Your task to perform on an android device: Check the settings for the Lyft app Image 0: 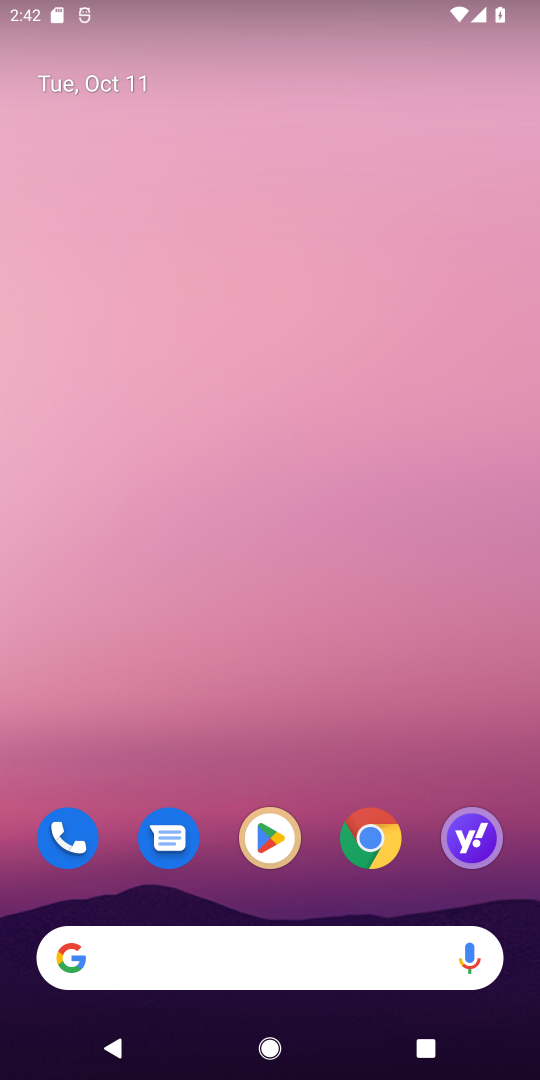
Step 0: click (371, 838)
Your task to perform on an android device: Check the settings for the Lyft app Image 1: 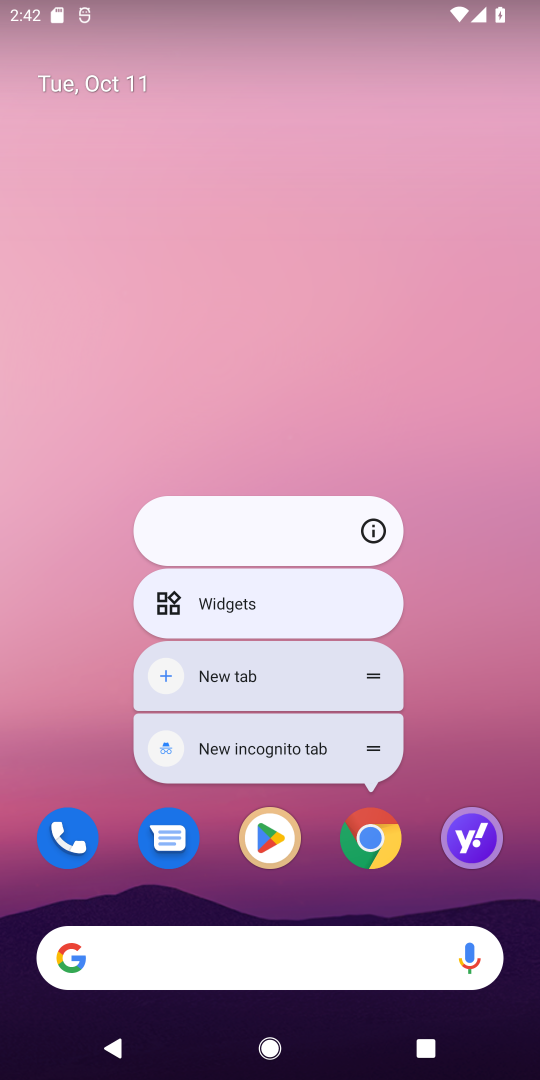
Step 1: click (378, 836)
Your task to perform on an android device: Check the settings for the Lyft app Image 2: 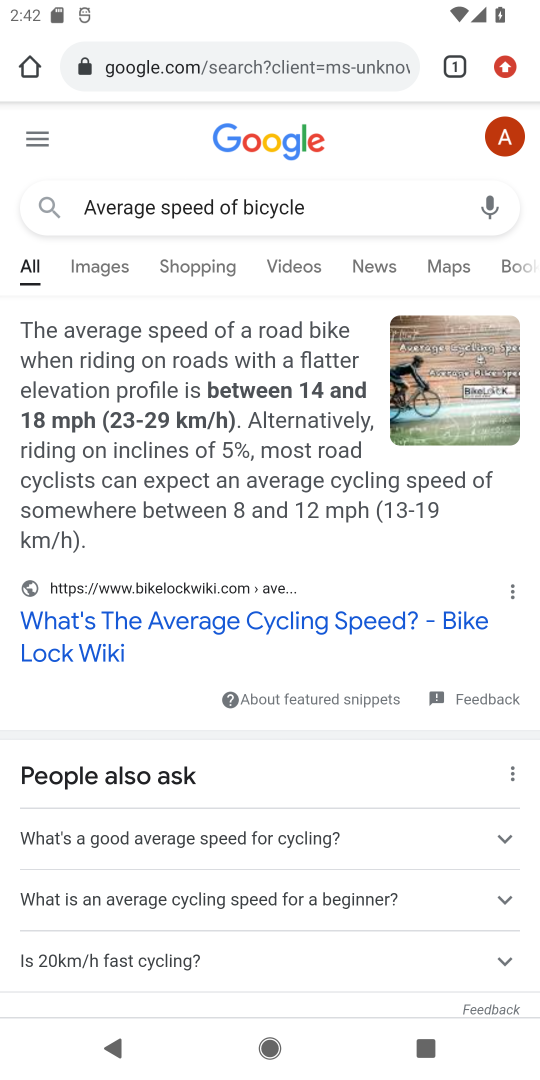
Step 2: click (236, 67)
Your task to perform on an android device: Check the settings for the Lyft app Image 3: 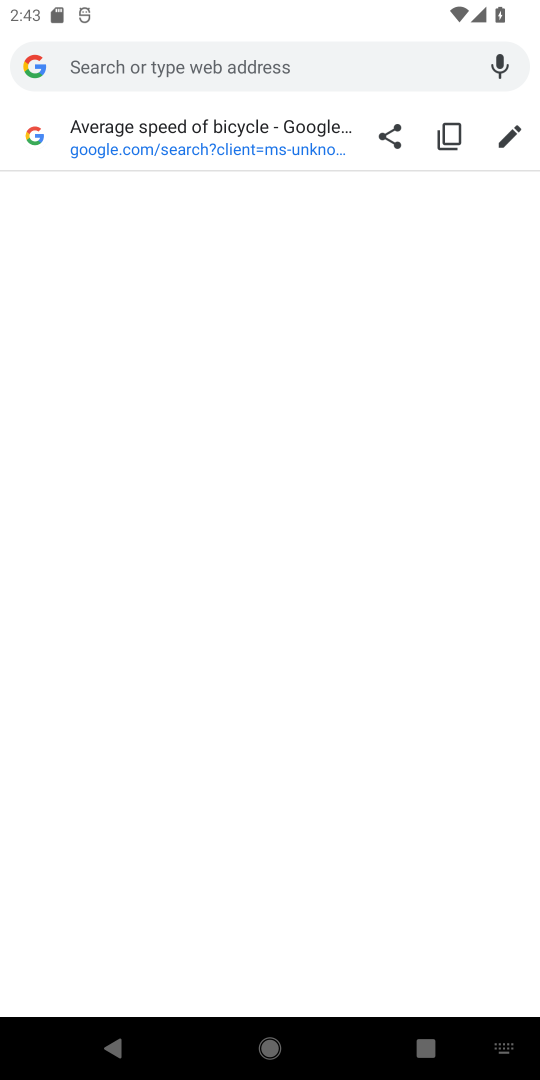
Step 3: type "lyft app"
Your task to perform on an android device: Check the settings for the Lyft app Image 4: 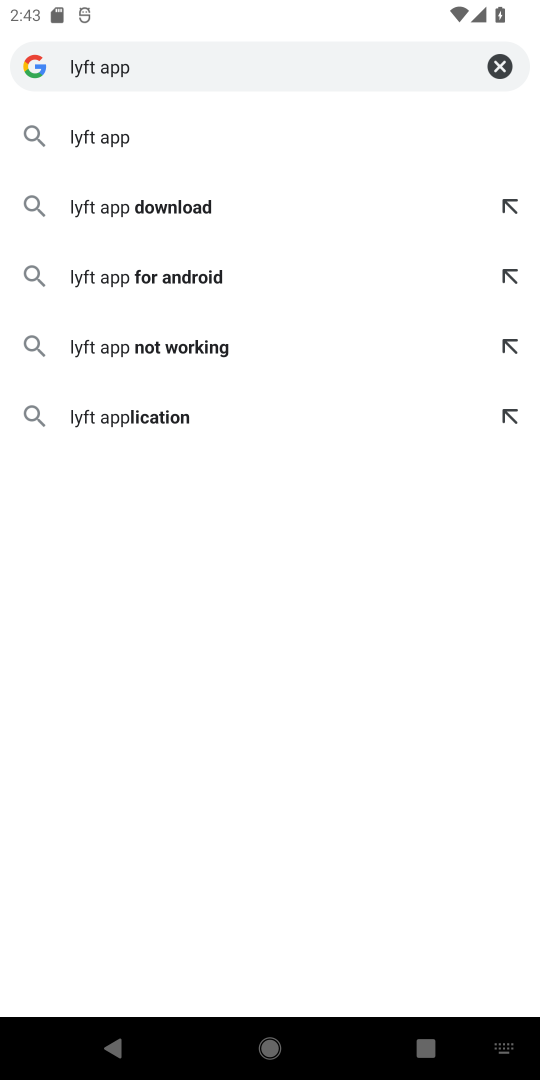
Step 4: click (87, 132)
Your task to perform on an android device: Check the settings for the Lyft app Image 5: 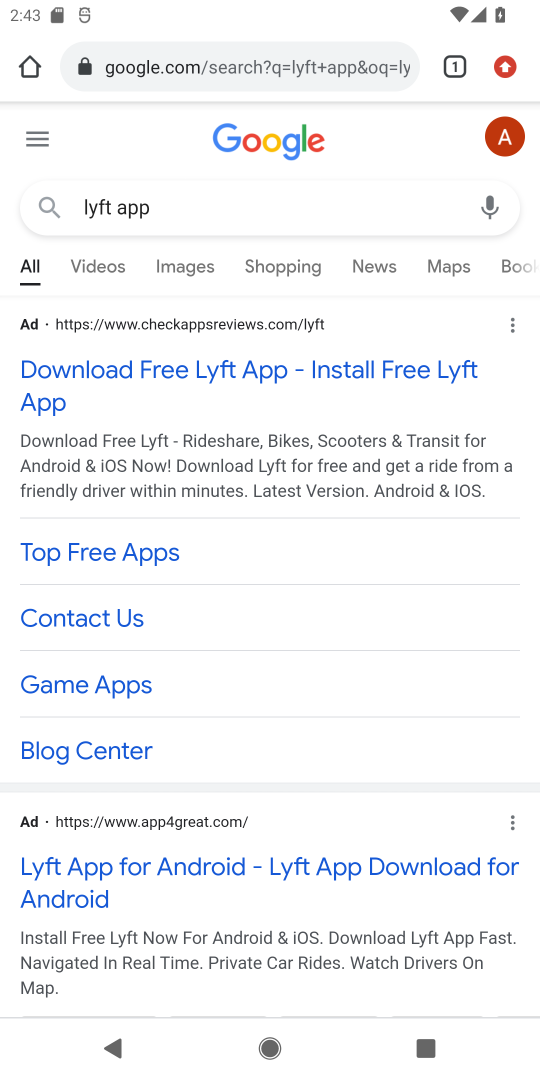
Step 5: drag from (279, 795) to (309, 339)
Your task to perform on an android device: Check the settings for the Lyft app Image 6: 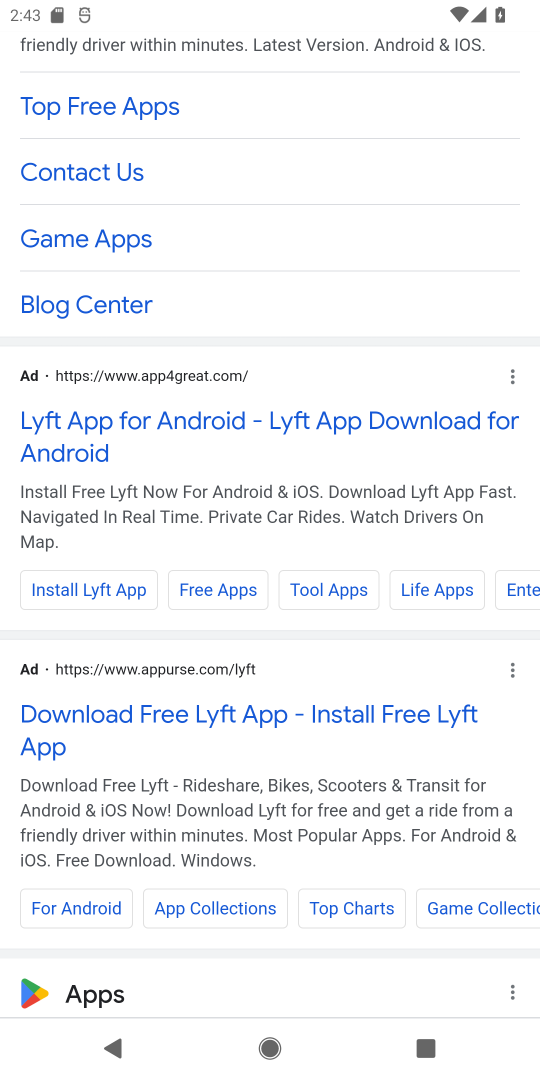
Step 6: drag from (197, 743) to (201, 404)
Your task to perform on an android device: Check the settings for the Lyft app Image 7: 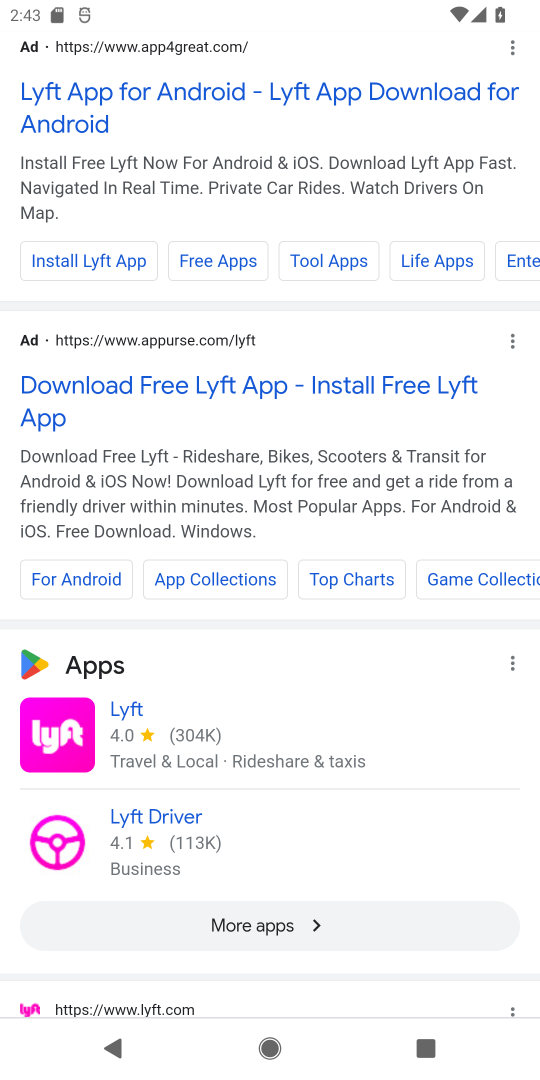
Step 7: click (126, 710)
Your task to perform on an android device: Check the settings for the Lyft app Image 8: 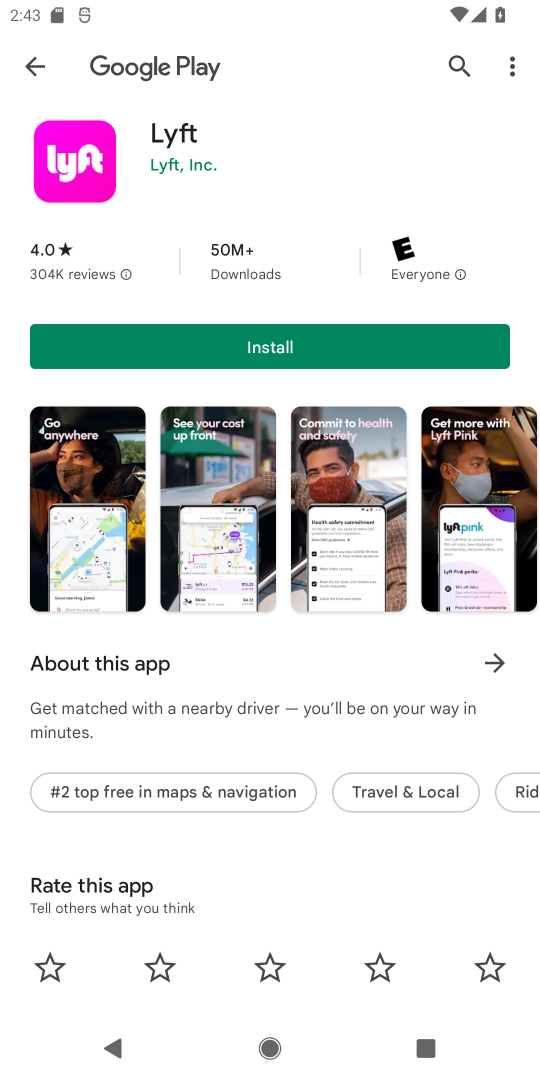
Step 8: click (274, 356)
Your task to perform on an android device: Check the settings for the Lyft app Image 9: 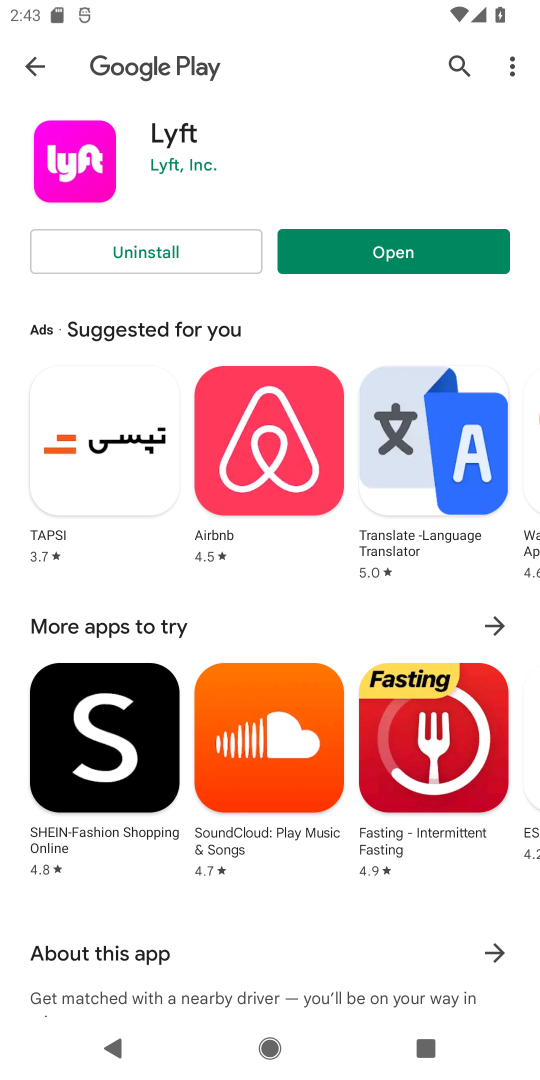
Step 9: click (366, 256)
Your task to perform on an android device: Check the settings for the Lyft app Image 10: 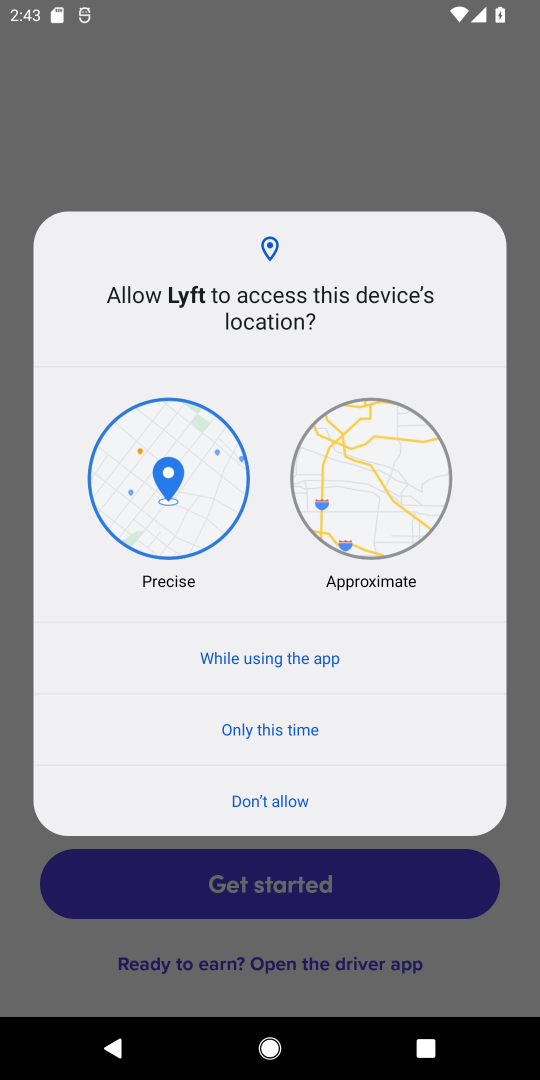
Step 10: click (302, 647)
Your task to perform on an android device: Check the settings for the Lyft app Image 11: 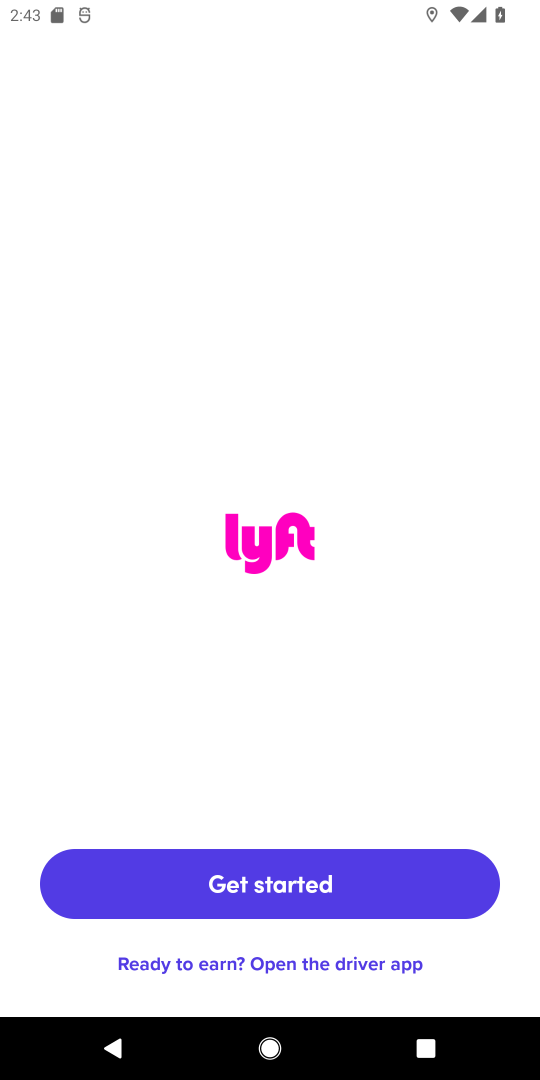
Step 11: click (274, 878)
Your task to perform on an android device: Check the settings for the Lyft app Image 12: 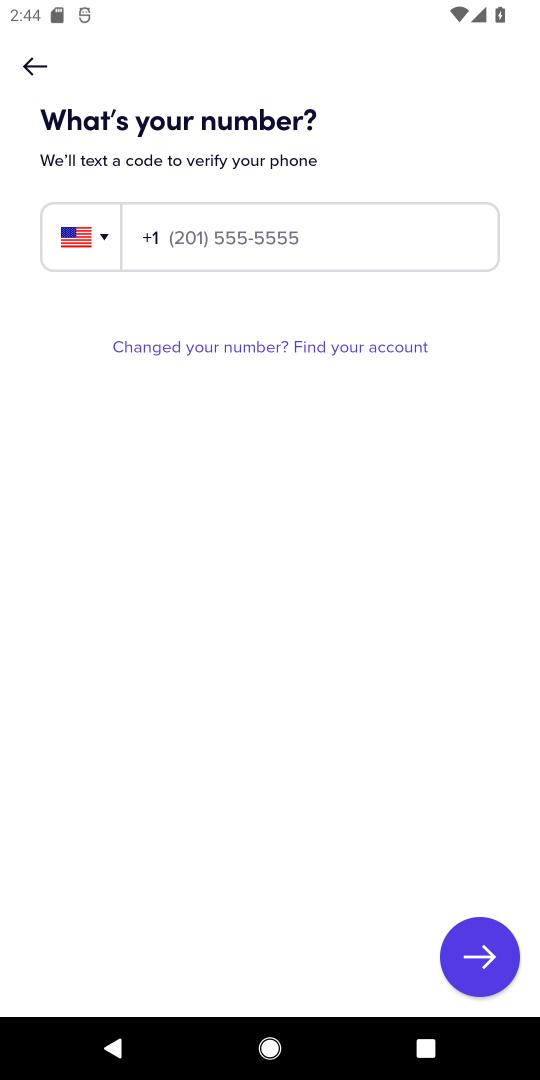
Step 12: click (463, 955)
Your task to perform on an android device: Check the settings for the Lyft app Image 13: 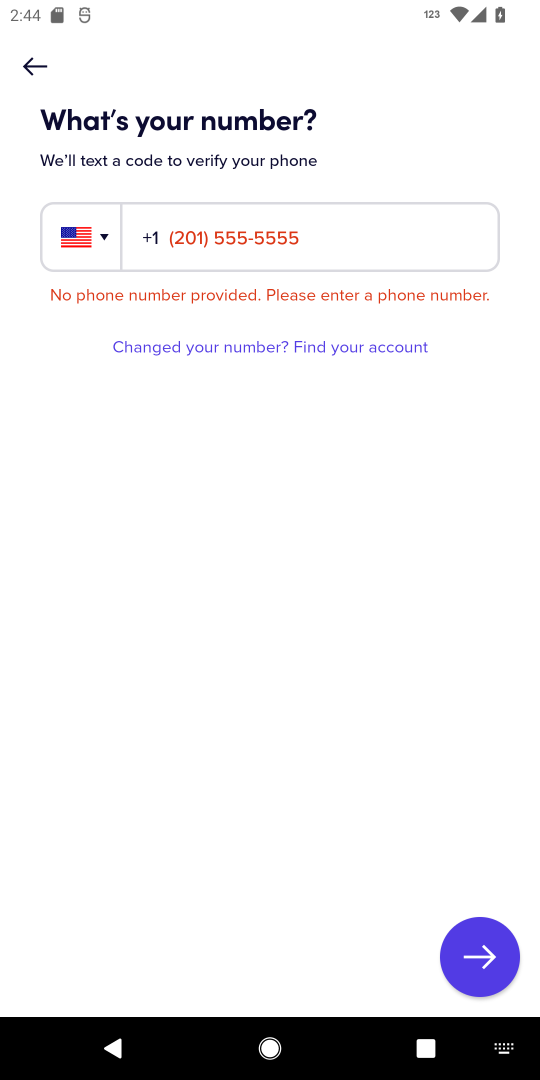
Step 13: click (473, 957)
Your task to perform on an android device: Check the settings for the Lyft app Image 14: 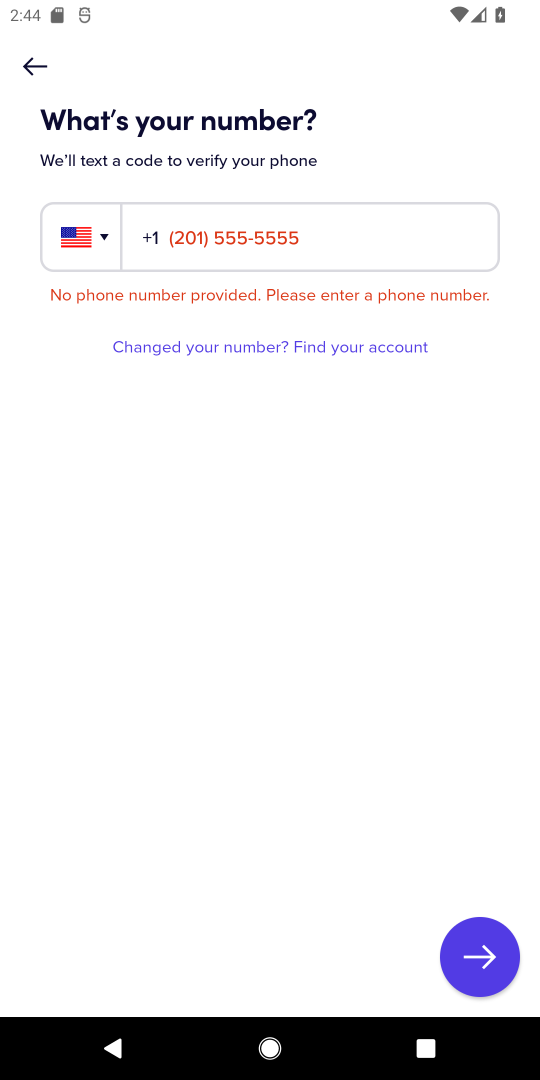
Step 14: click (33, 61)
Your task to perform on an android device: Check the settings for the Lyft app Image 15: 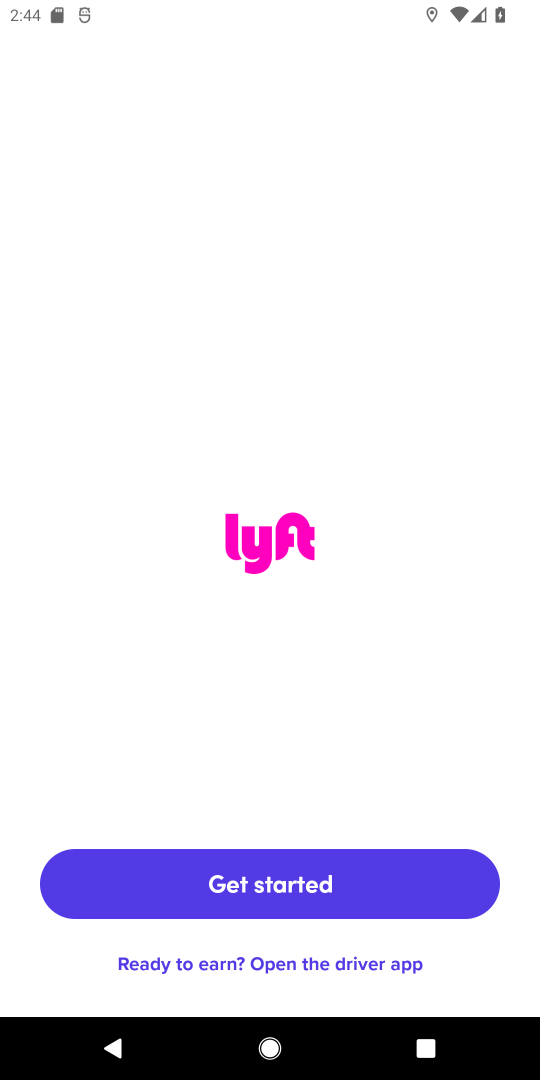
Step 15: click (245, 886)
Your task to perform on an android device: Check the settings for the Lyft app Image 16: 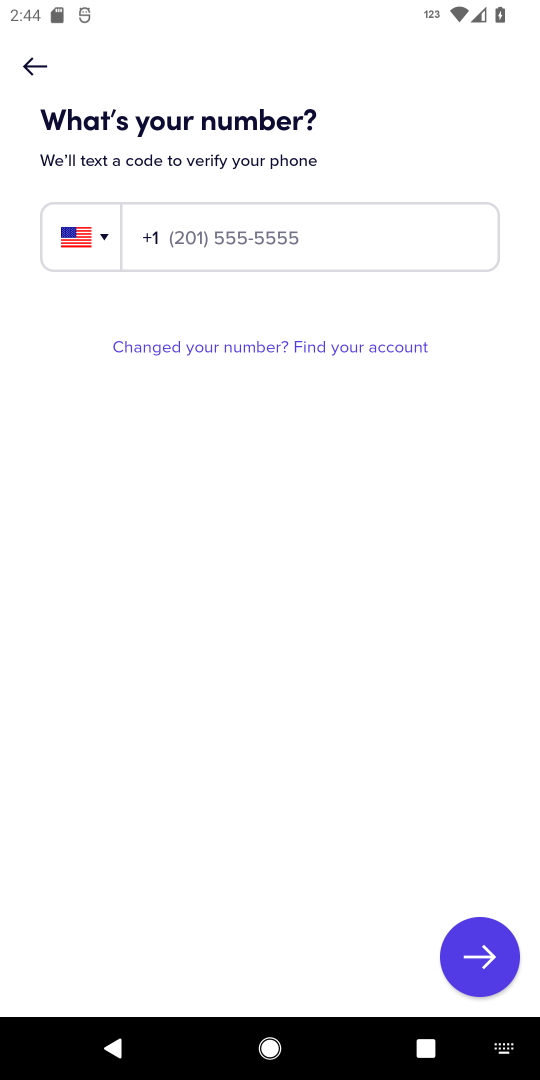
Step 16: type "987654321"
Your task to perform on an android device: Check the settings for the Lyft app Image 17: 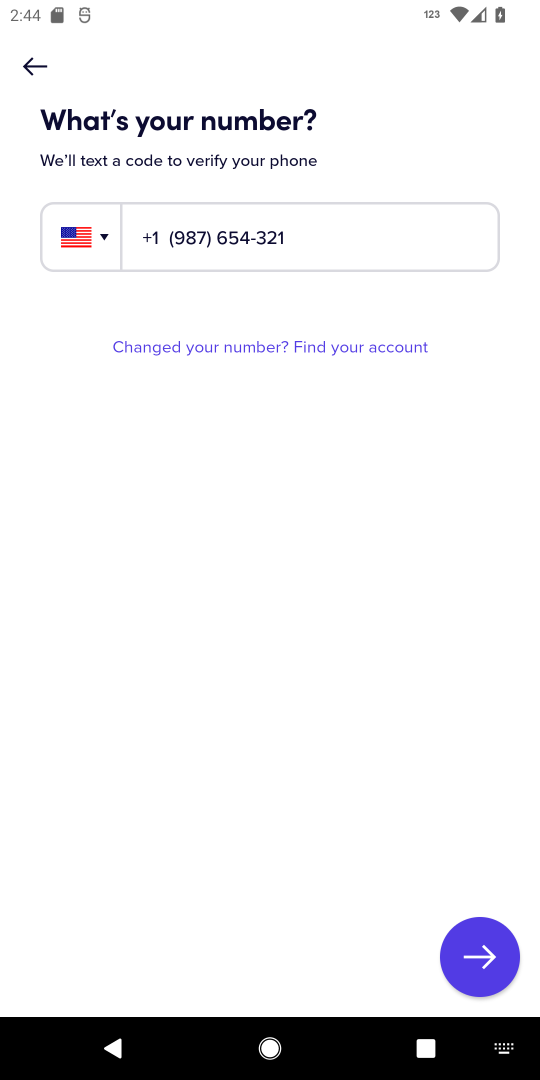
Step 17: click (487, 962)
Your task to perform on an android device: Check the settings for the Lyft app Image 18: 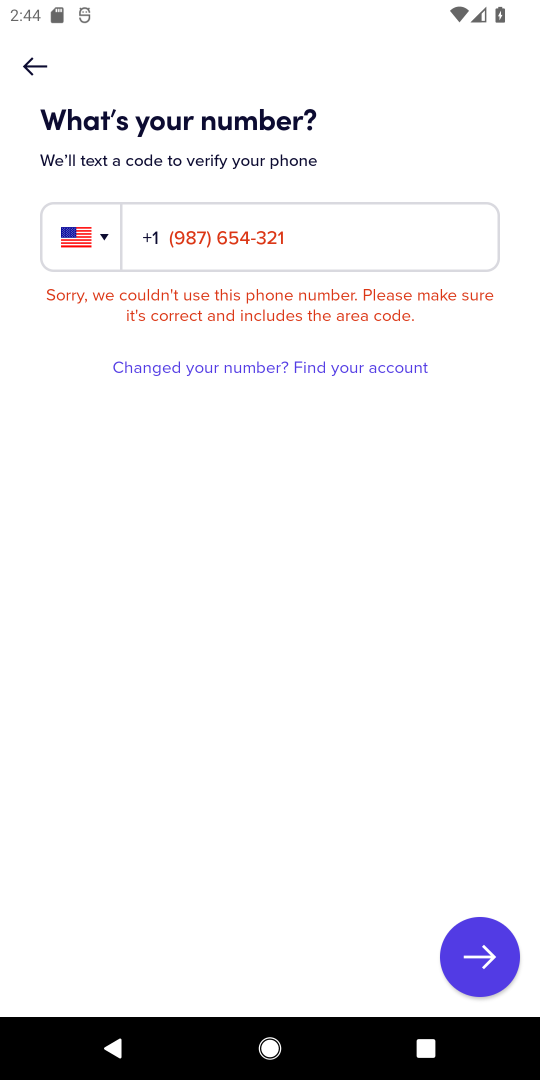
Step 18: task complete